Your task to perform on an android device: change notifications settings Image 0: 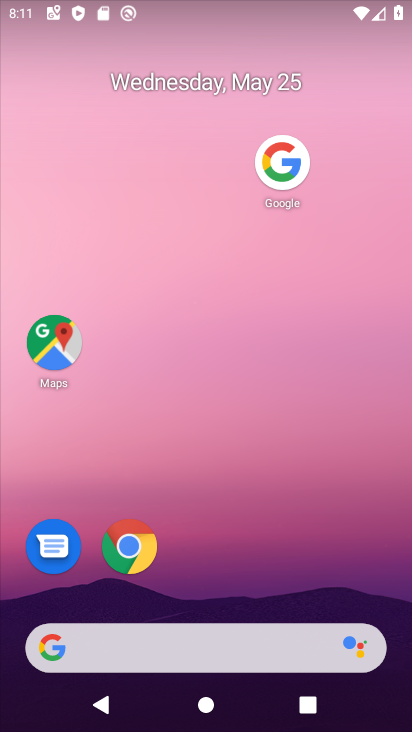
Step 0: drag from (224, 414) to (314, 74)
Your task to perform on an android device: change notifications settings Image 1: 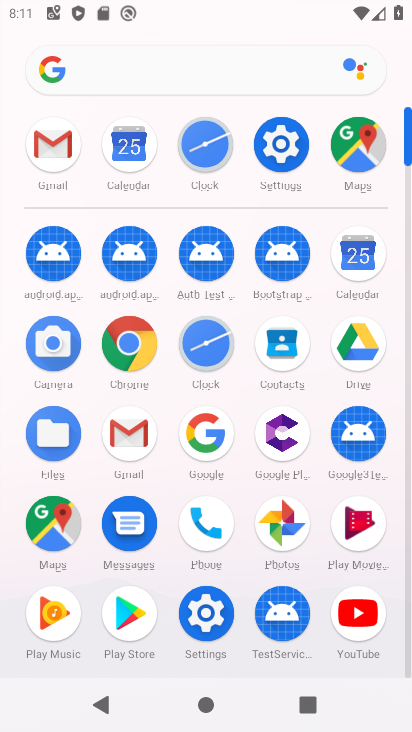
Step 1: click (295, 147)
Your task to perform on an android device: change notifications settings Image 2: 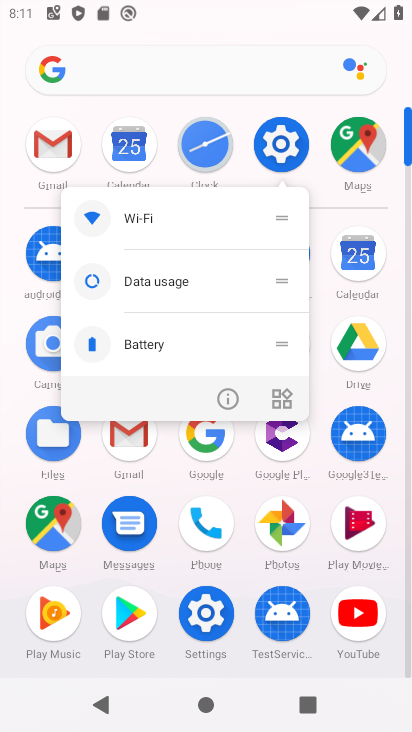
Step 2: click (295, 146)
Your task to perform on an android device: change notifications settings Image 3: 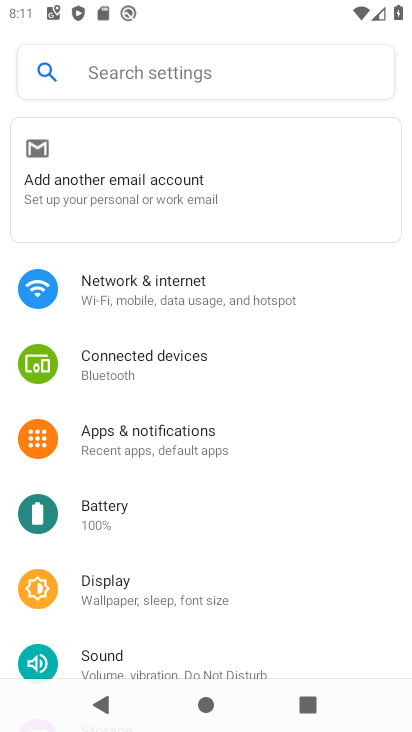
Step 3: drag from (252, 395) to (306, 308)
Your task to perform on an android device: change notifications settings Image 4: 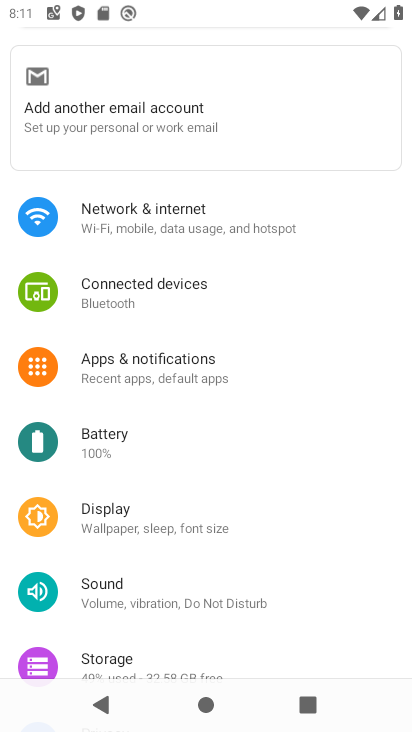
Step 4: click (190, 358)
Your task to perform on an android device: change notifications settings Image 5: 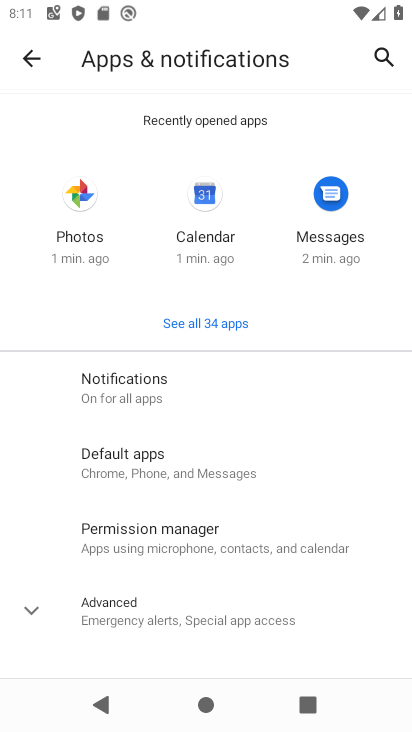
Step 5: click (148, 388)
Your task to perform on an android device: change notifications settings Image 6: 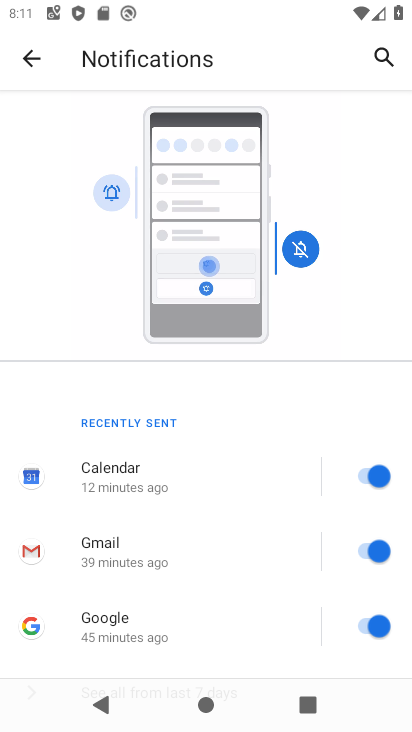
Step 6: click (362, 477)
Your task to perform on an android device: change notifications settings Image 7: 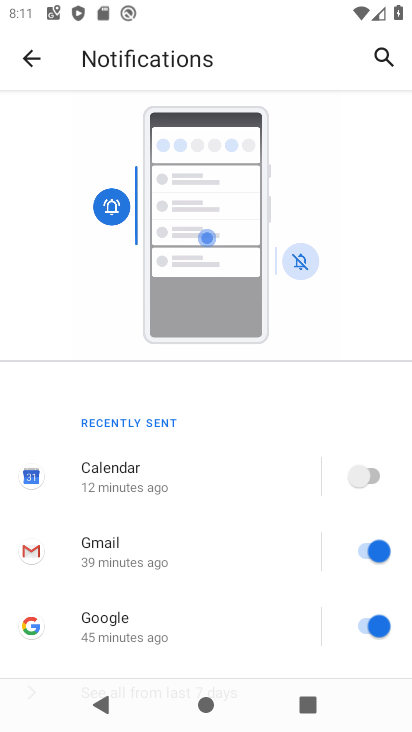
Step 7: task complete